Your task to perform on an android device: Open the calendar and show me this week's events Image 0: 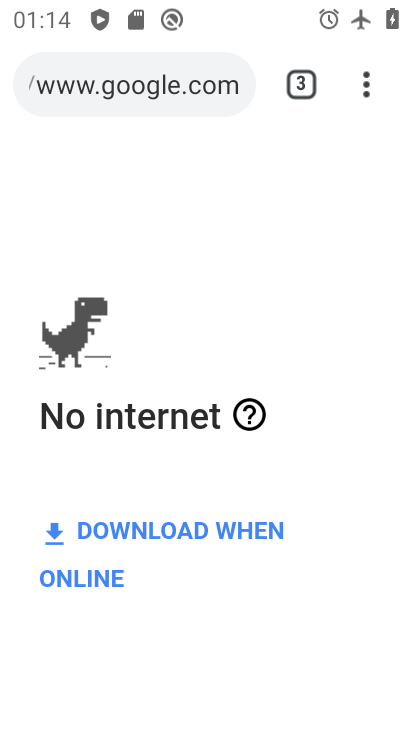
Step 0: press home button
Your task to perform on an android device: Open the calendar and show me this week's events Image 1: 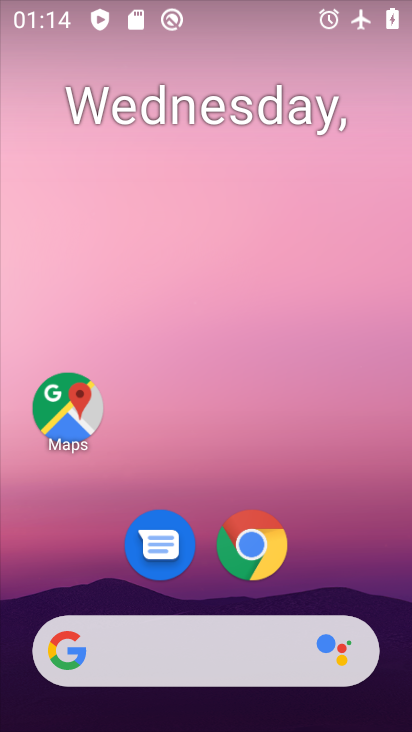
Step 1: drag from (351, 445) to (244, 95)
Your task to perform on an android device: Open the calendar and show me this week's events Image 2: 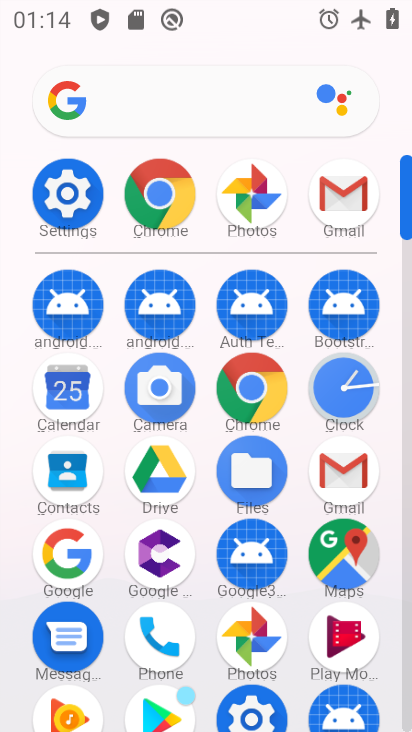
Step 2: click (87, 391)
Your task to perform on an android device: Open the calendar and show me this week's events Image 3: 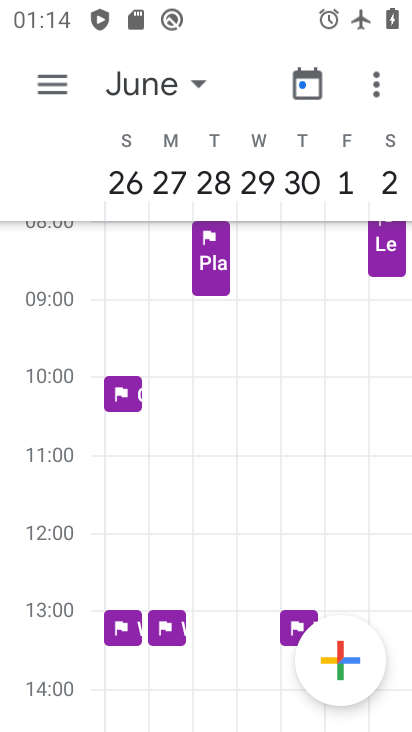
Step 3: click (138, 79)
Your task to perform on an android device: Open the calendar and show me this week's events Image 4: 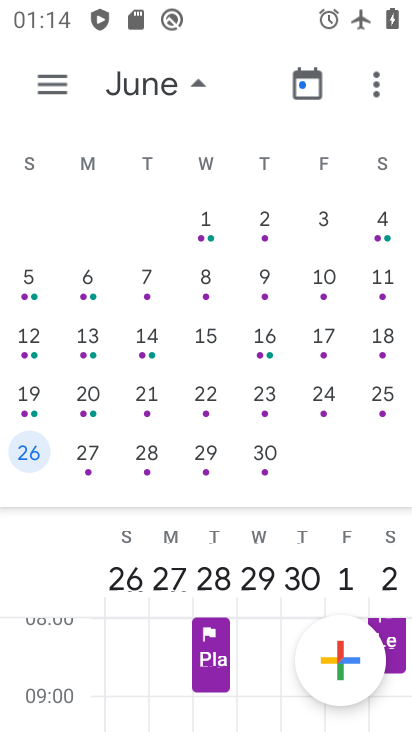
Step 4: drag from (64, 339) to (410, 280)
Your task to perform on an android device: Open the calendar and show me this week's events Image 5: 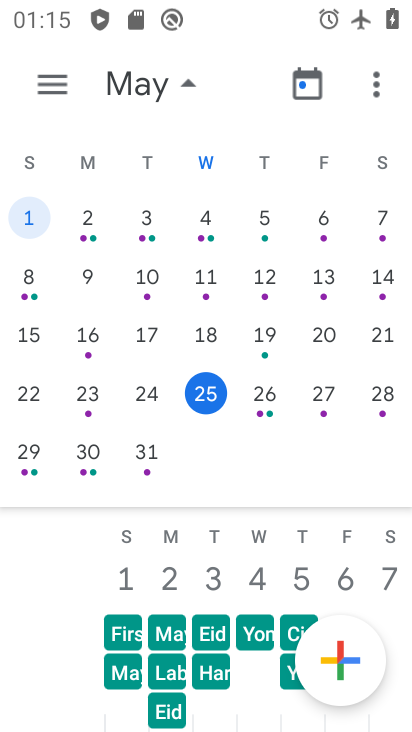
Step 5: click (185, 394)
Your task to perform on an android device: Open the calendar and show me this week's events Image 6: 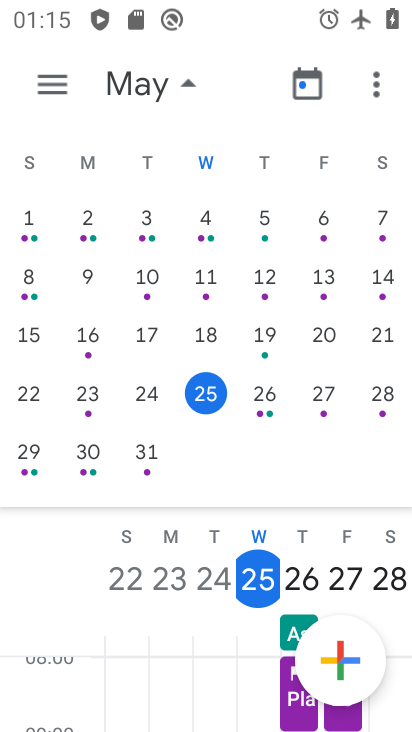
Step 6: task complete